Your task to perform on an android device: Open calendar and show me the first week of next month Image 0: 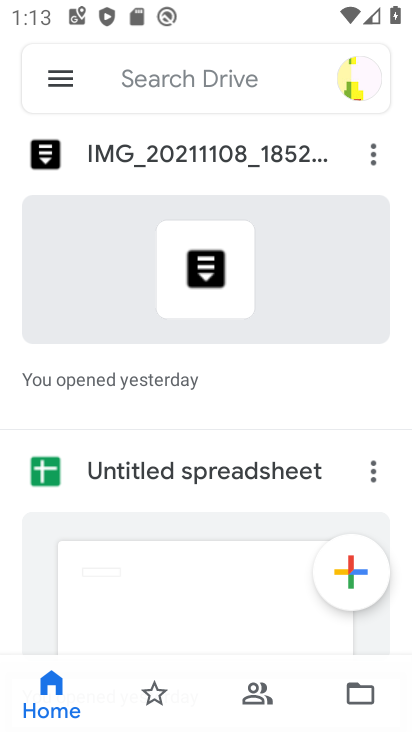
Step 0: press home button
Your task to perform on an android device: Open calendar and show me the first week of next month Image 1: 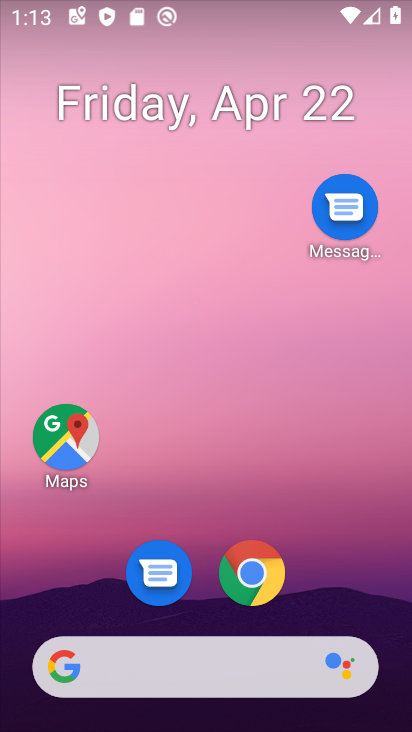
Step 1: drag from (324, 571) to (273, 55)
Your task to perform on an android device: Open calendar and show me the first week of next month Image 2: 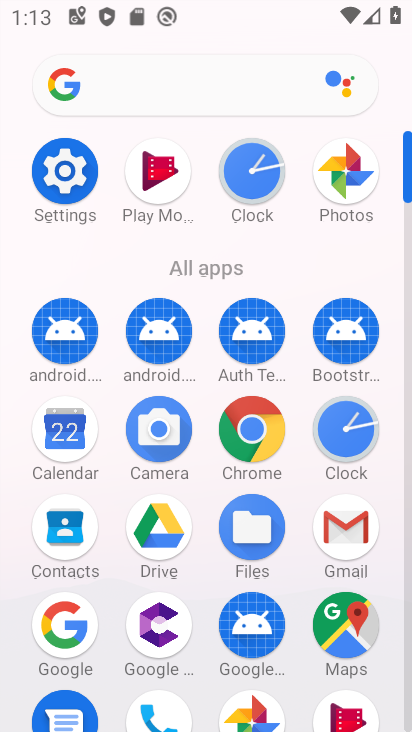
Step 2: click (71, 439)
Your task to perform on an android device: Open calendar and show me the first week of next month Image 3: 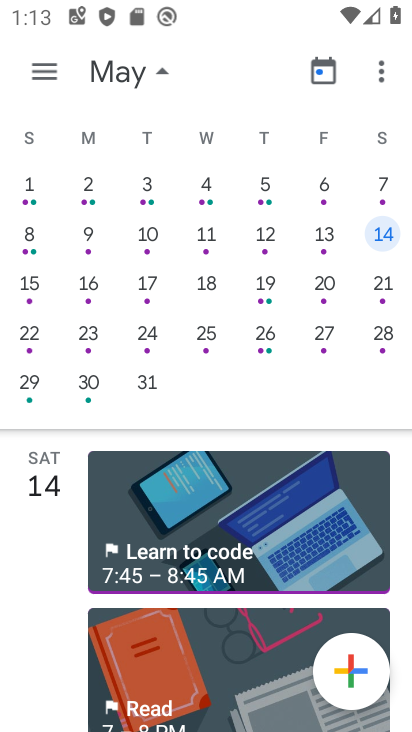
Step 3: click (29, 196)
Your task to perform on an android device: Open calendar and show me the first week of next month Image 4: 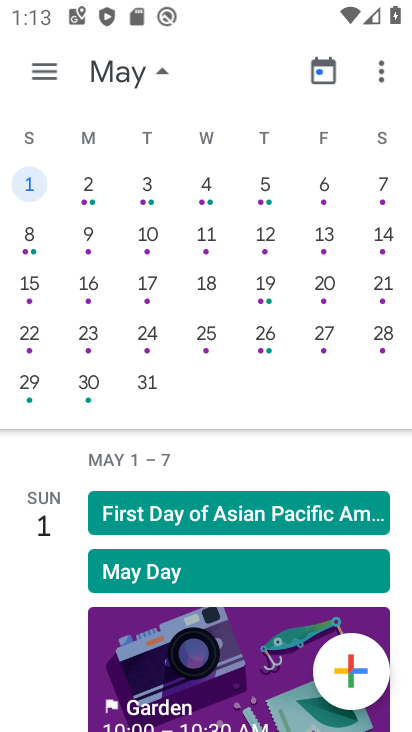
Step 4: click (81, 202)
Your task to perform on an android device: Open calendar and show me the first week of next month Image 5: 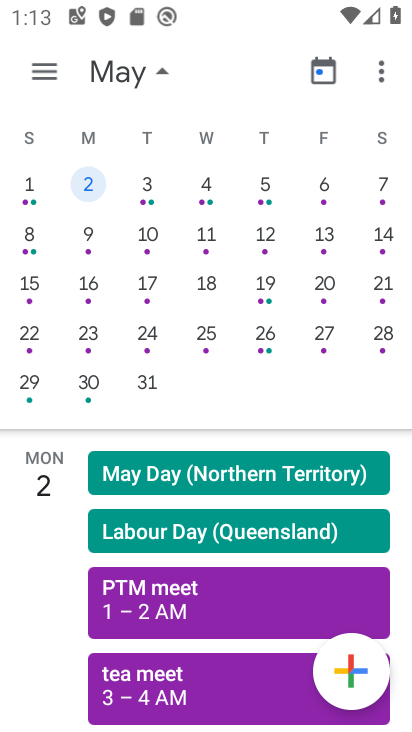
Step 5: click (159, 202)
Your task to perform on an android device: Open calendar and show me the first week of next month Image 6: 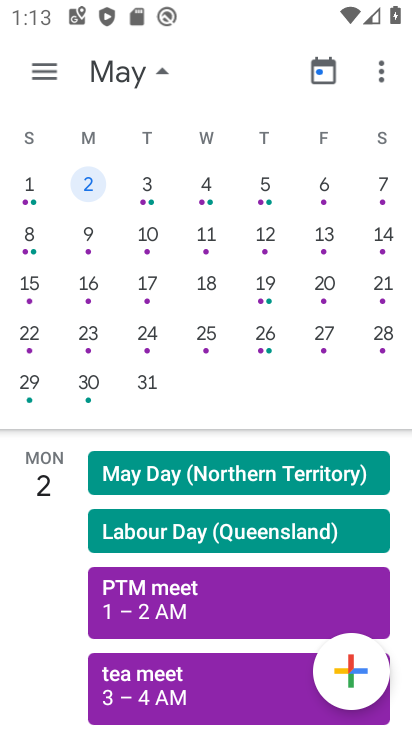
Step 6: click (205, 203)
Your task to perform on an android device: Open calendar and show me the first week of next month Image 7: 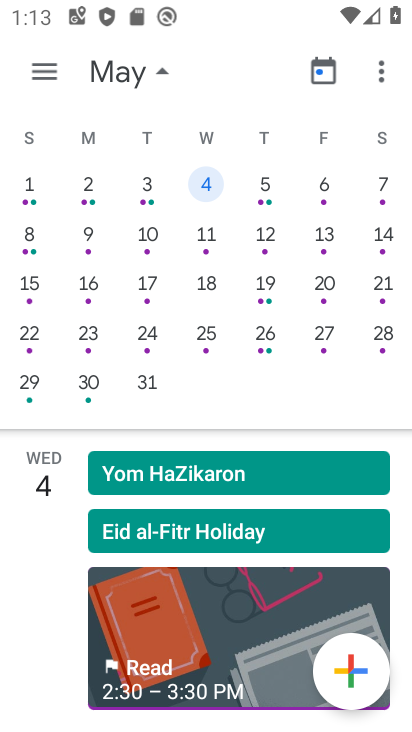
Step 7: click (260, 192)
Your task to perform on an android device: Open calendar and show me the first week of next month Image 8: 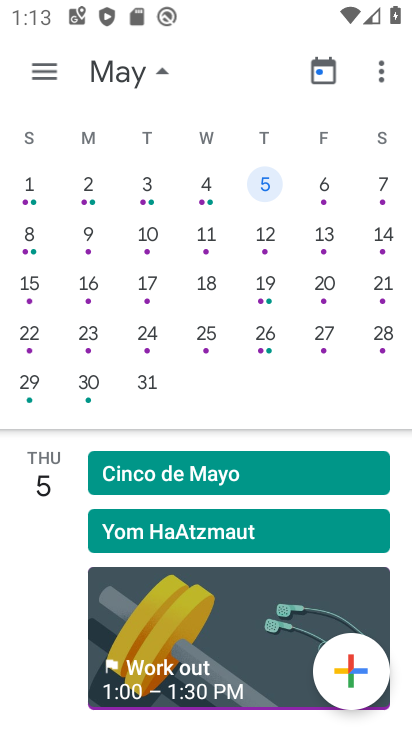
Step 8: click (319, 204)
Your task to perform on an android device: Open calendar and show me the first week of next month Image 9: 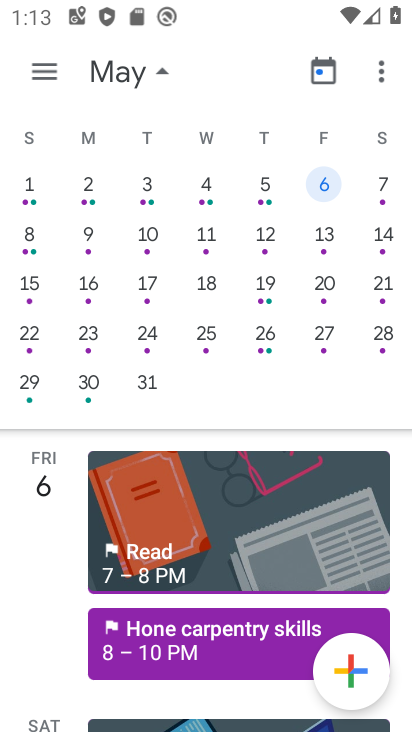
Step 9: click (379, 185)
Your task to perform on an android device: Open calendar and show me the first week of next month Image 10: 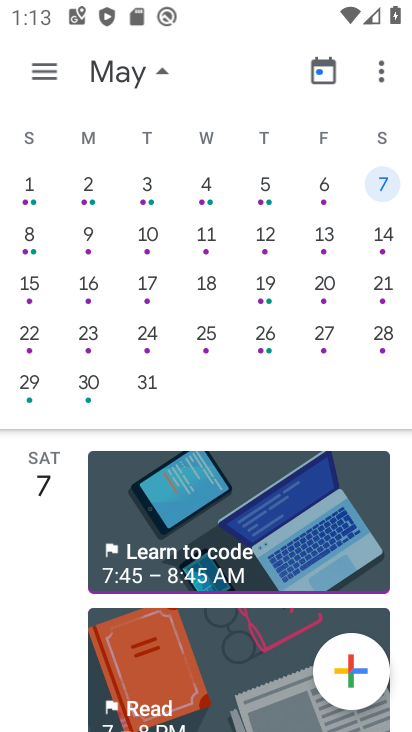
Step 10: task complete